Your task to perform on an android device: How do I get to the nearest Sprint Store? Image 0: 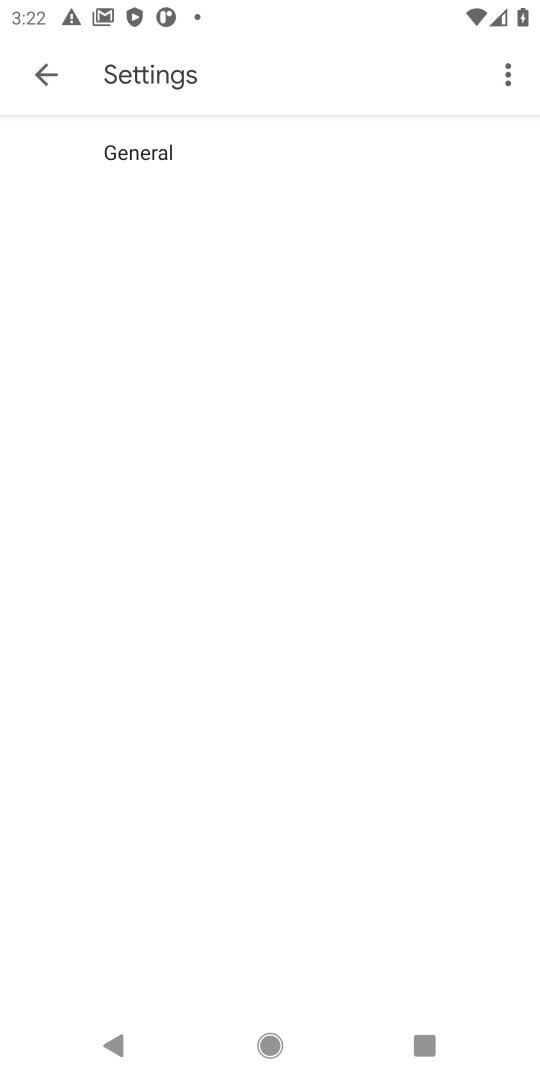
Step 0: press home button
Your task to perform on an android device: How do I get to the nearest Sprint Store? Image 1: 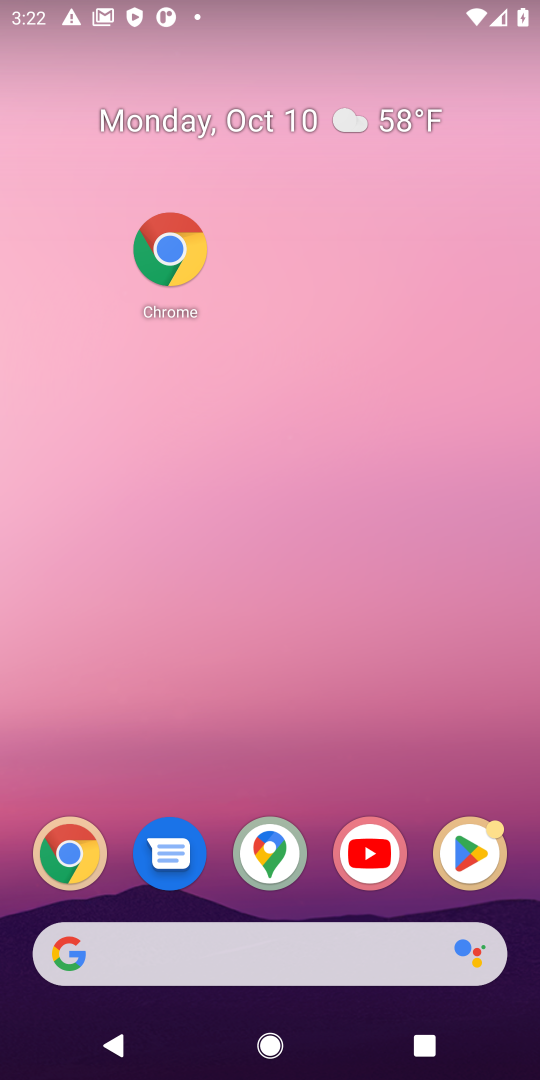
Step 1: click (290, 854)
Your task to perform on an android device: How do I get to the nearest Sprint Store? Image 2: 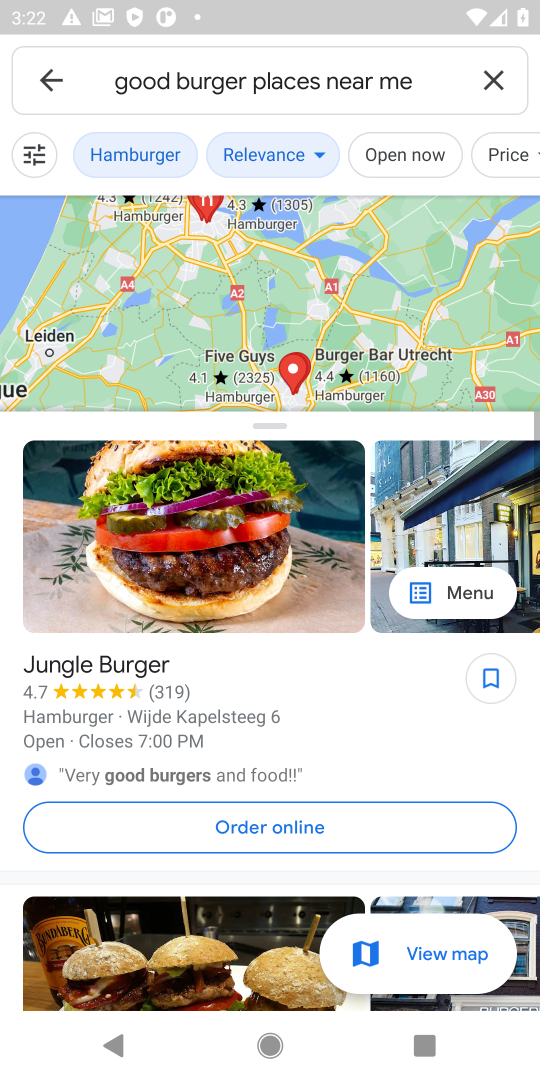
Step 2: click (251, 73)
Your task to perform on an android device: How do I get to the nearest Sprint Store? Image 3: 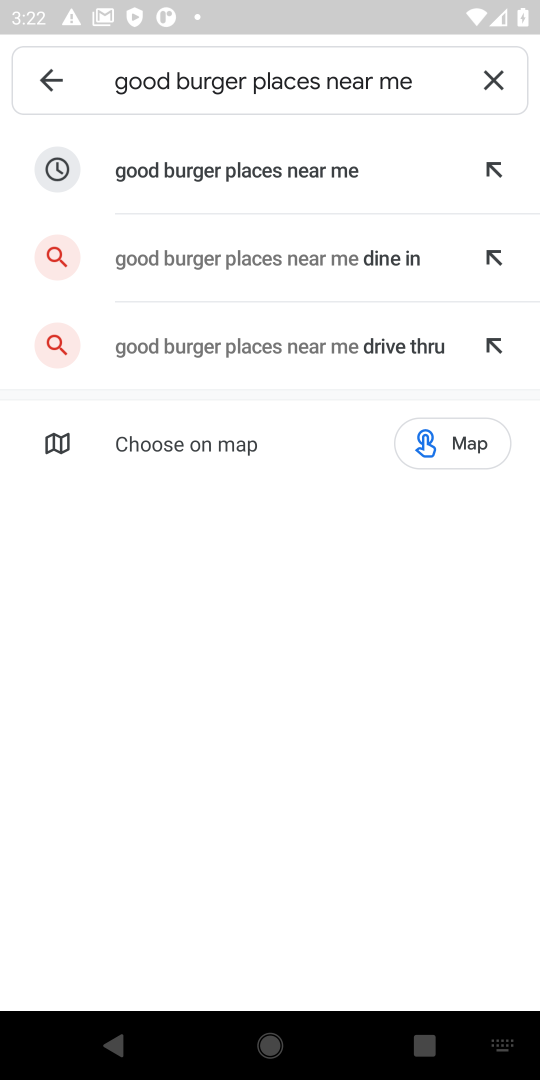
Step 3: click (496, 83)
Your task to perform on an android device: How do I get to the nearest Sprint Store? Image 4: 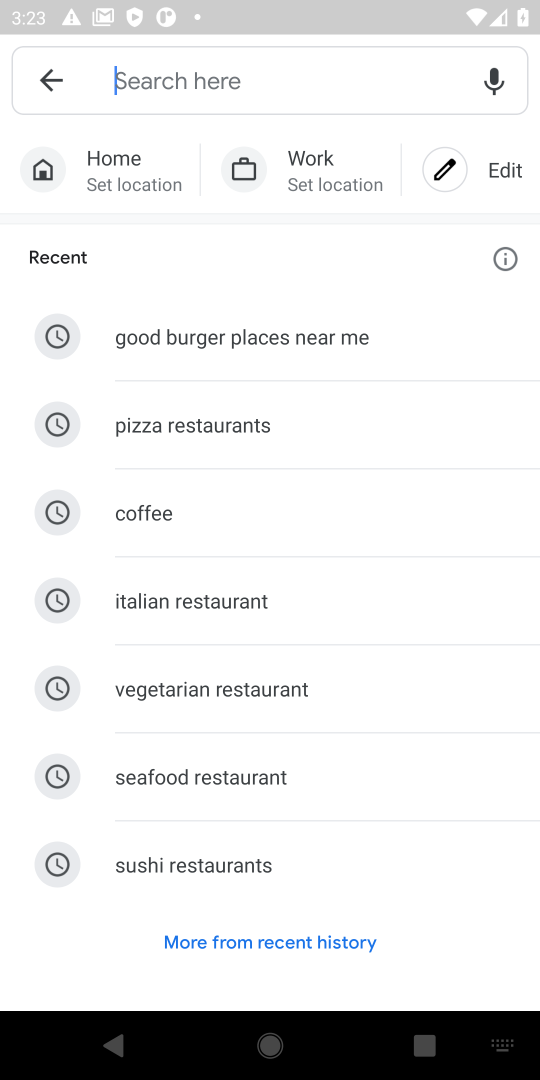
Step 4: type "the nearest Sprint Store"
Your task to perform on an android device: How do I get to the nearest Sprint Store? Image 5: 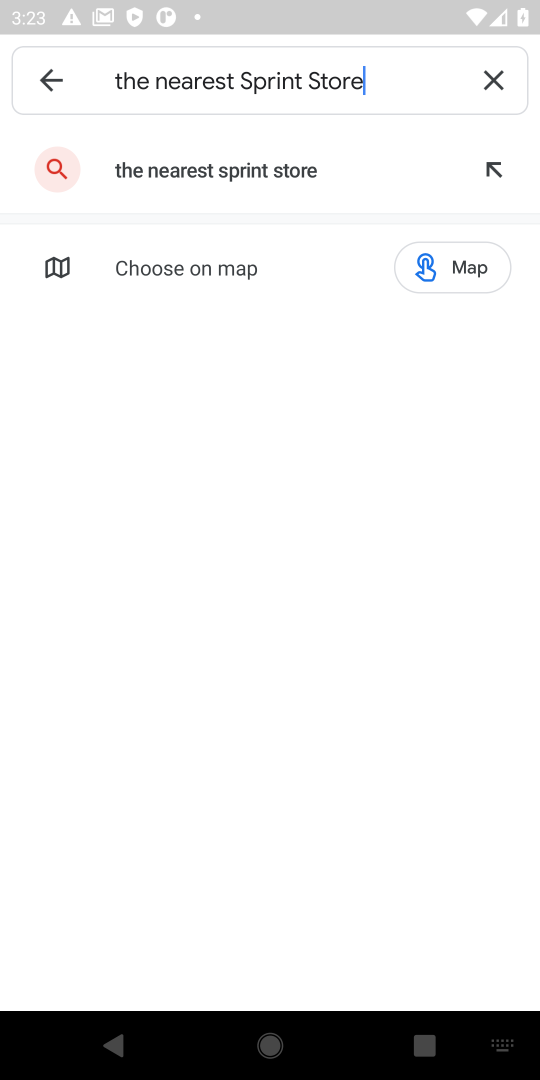
Step 5: click (329, 179)
Your task to perform on an android device: How do I get to the nearest Sprint Store? Image 6: 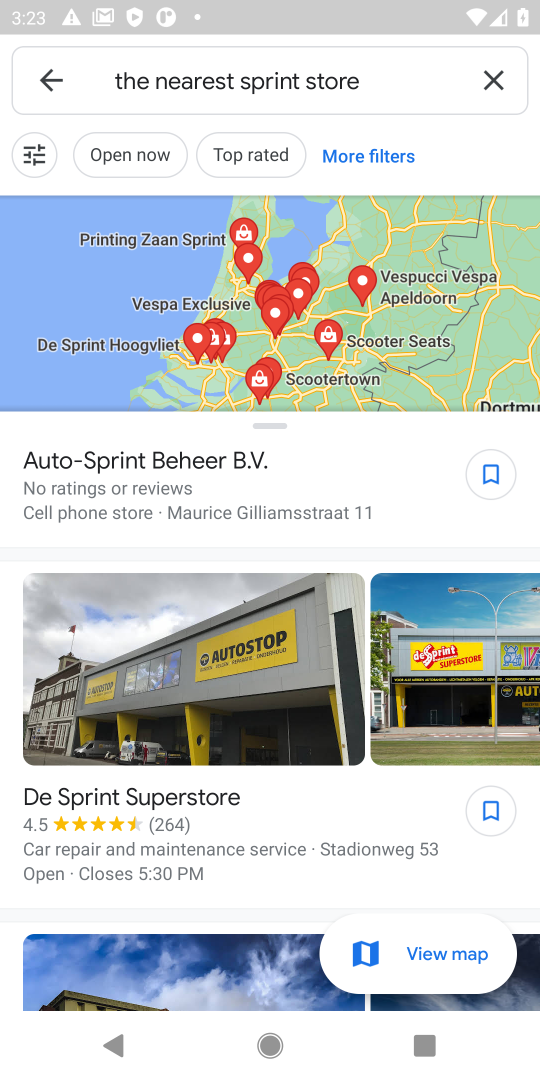
Step 6: task complete